Your task to perform on an android device: set the stopwatch Image 0: 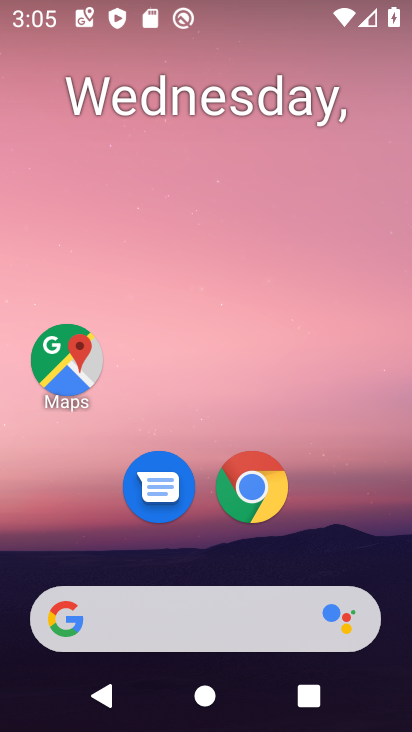
Step 0: drag from (283, 642) to (295, 335)
Your task to perform on an android device: set the stopwatch Image 1: 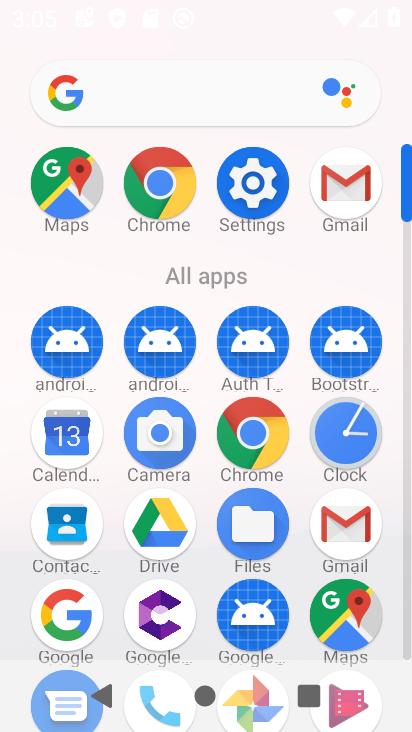
Step 1: drag from (239, 503) to (267, 135)
Your task to perform on an android device: set the stopwatch Image 2: 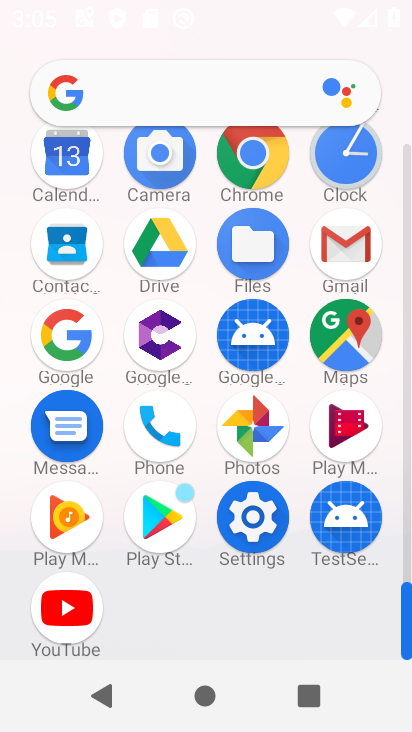
Step 2: click (345, 192)
Your task to perform on an android device: set the stopwatch Image 3: 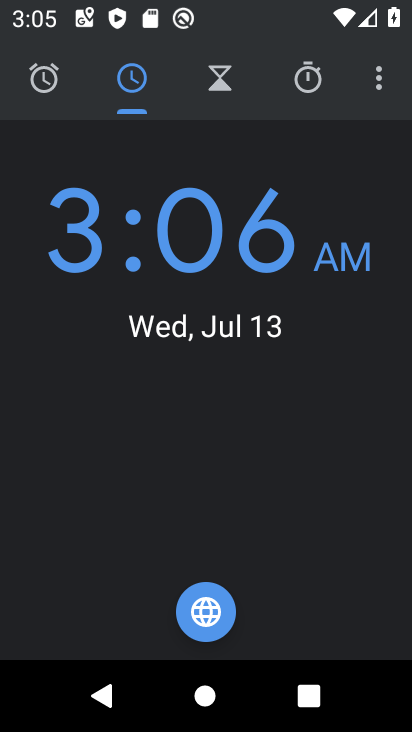
Step 3: click (298, 96)
Your task to perform on an android device: set the stopwatch Image 4: 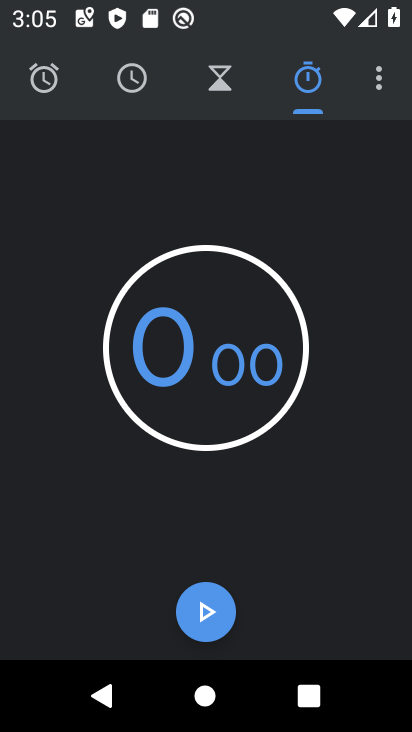
Step 4: click (215, 608)
Your task to perform on an android device: set the stopwatch Image 5: 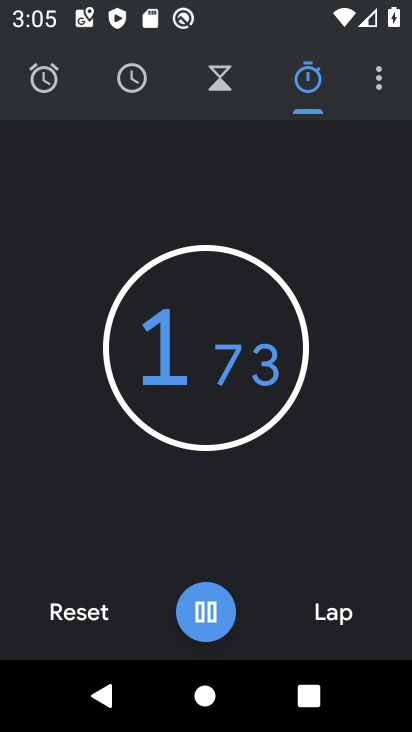
Step 5: task complete